Your task to perform on an android device: delete the emails in spam in the gmail app Image 0: 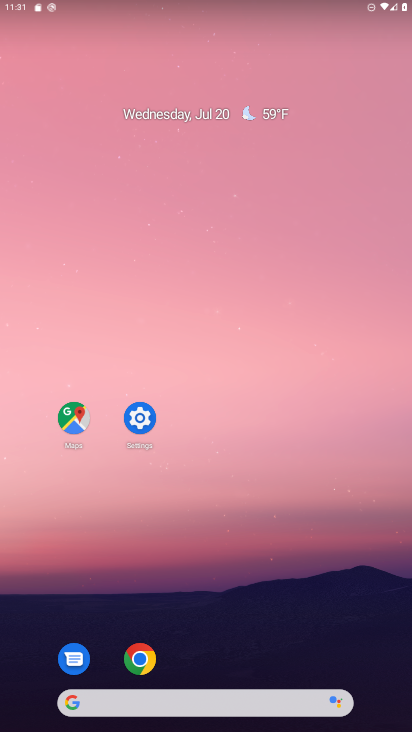
Step 0: drag from (397, 728) to (273, 2)
Your task to perform on an android device: delete the emails in spam in the gmail app Image 1: 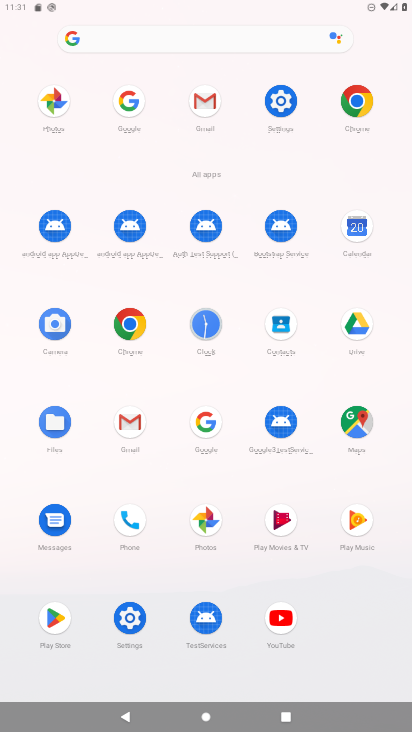
Step 1: click (138, 419)
Your task to perform on an android device: delete the emails in spam in the gmail app Image 2: 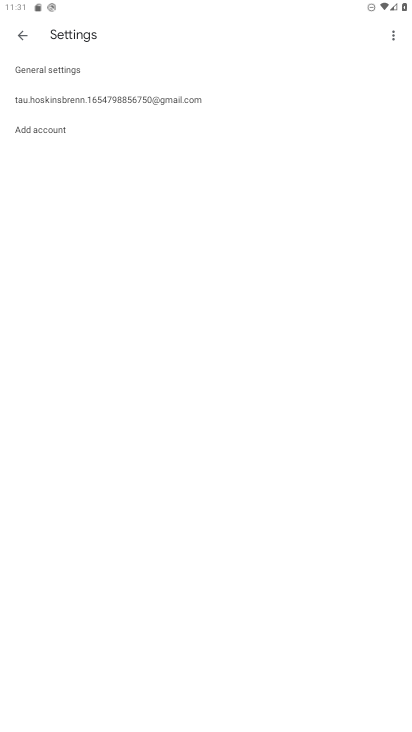
Step 2: click (22, 39)
Your task to perform on an android device: delete the emails in spam in the gmail app Image 3: 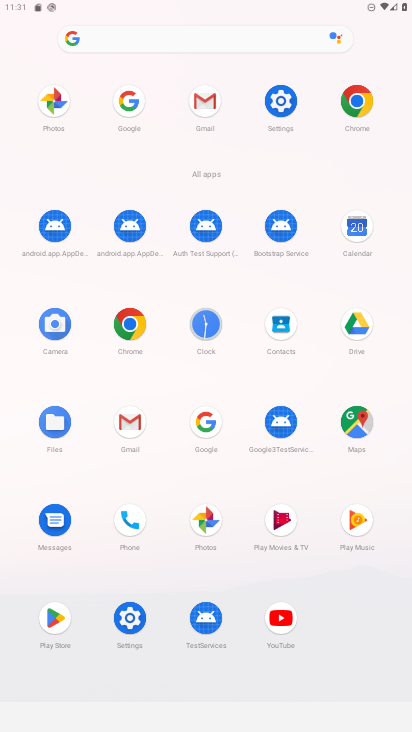
Step 3: click (127, 431)
Your task to perform on an android device: delete the emails in spam in the gmail app Image 4: 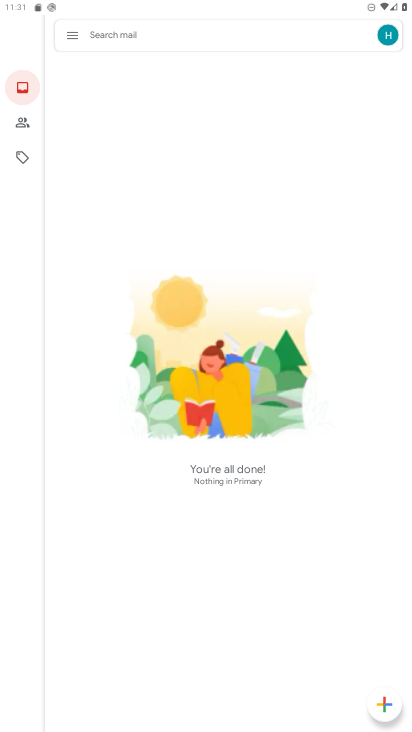
Step 4: click (73, 41)
Your task to perform on an android device: delete the emails in spam in the gmail app Image 5: 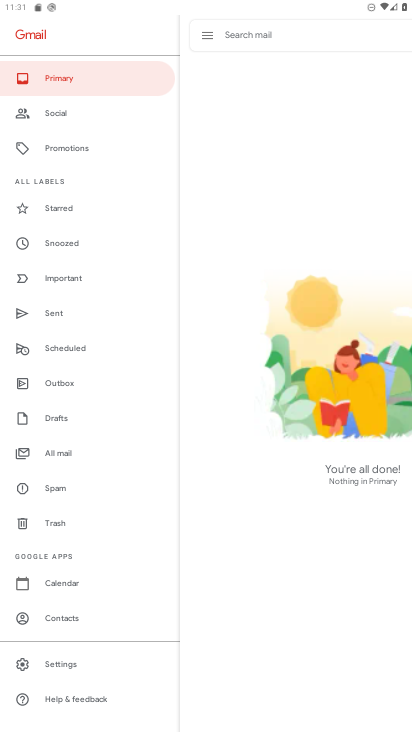
Step 5: click (40, 488)
Your task to perform on an android device: delete the emails in spam in the gmail app Image 6: 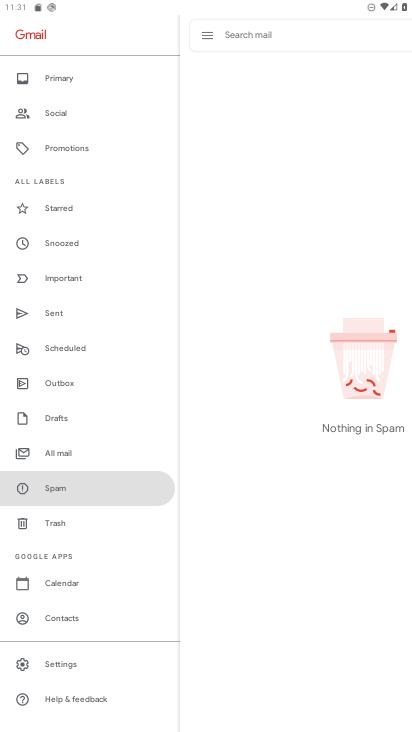
Step 6: task complete